Your task to perform on an android device: turn on priority inbox in the gmail app Image 0: 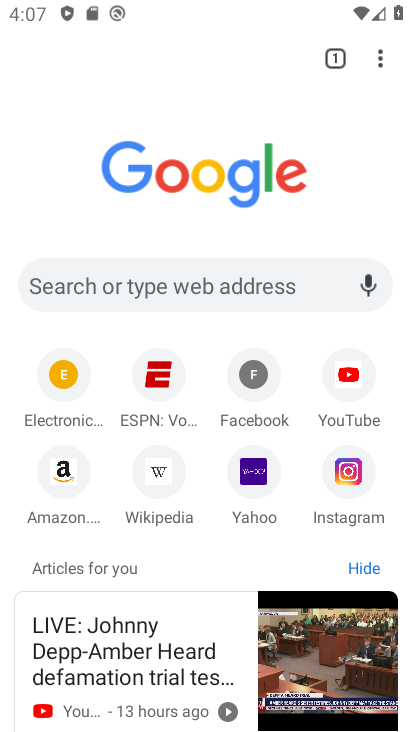
Step 0: press back button
Your task to perform on an android device: turn on priority inbox in the gmail app Image 1: 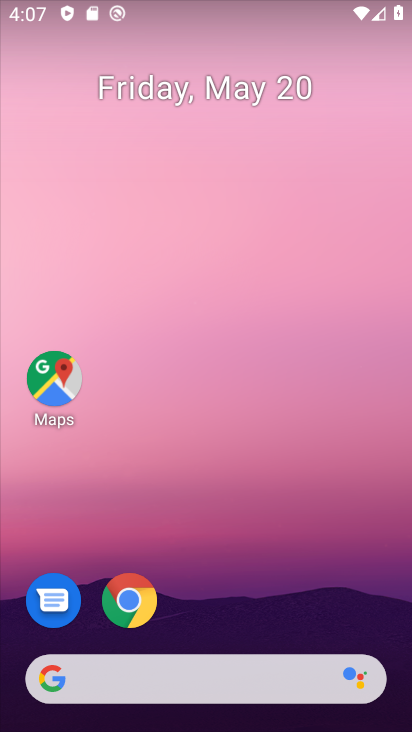
Step 1: drag from (244, 565) to (243, 3)
Your task to perform on an android device: turn on priority inbox in the gmail app Image 2: 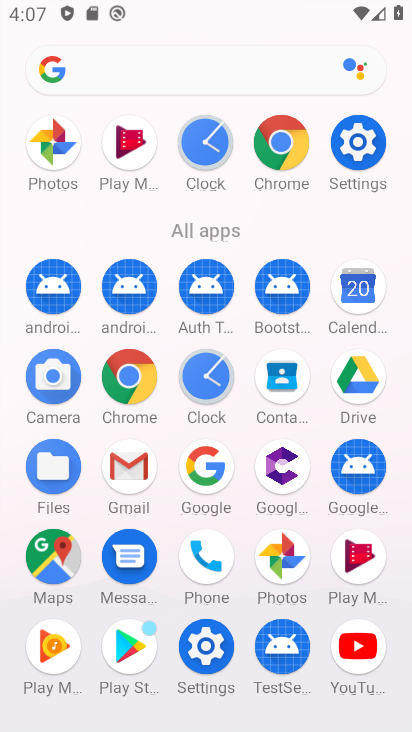
Step 2: drag from (4, 545) to (26, 208)
Your task to perform on an android device: turn on priority inbox in the gmail app Image 3: 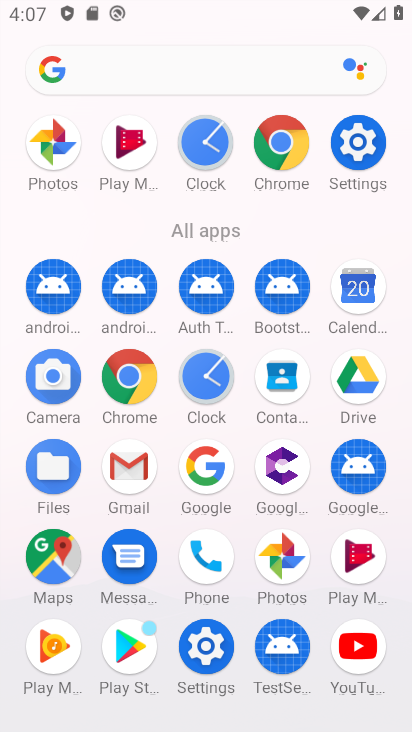
Step 3: drag from (0, 620) to (0, 395)
Your task to perform on an android device: turn on priority inbox in the gmail app Image 4: 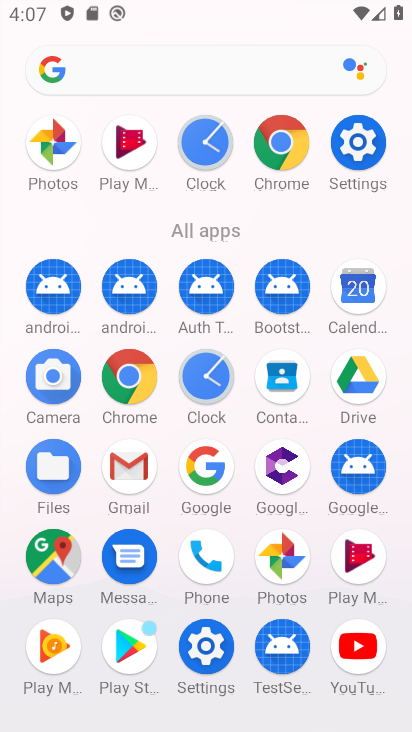
Step 4: click (119, 456)
Your task to perform on an android device: turn on priority inbox in the gmail app Image 5: 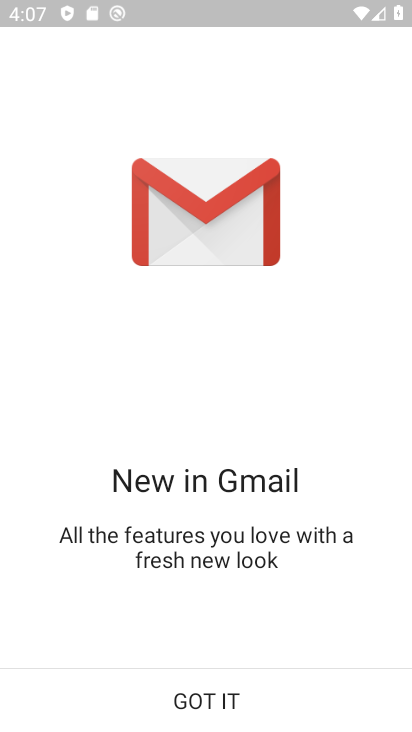
Step 5: click (181, 691)
Your task to perform on an android device: turn on priority inbox in the gmail app Image 6: 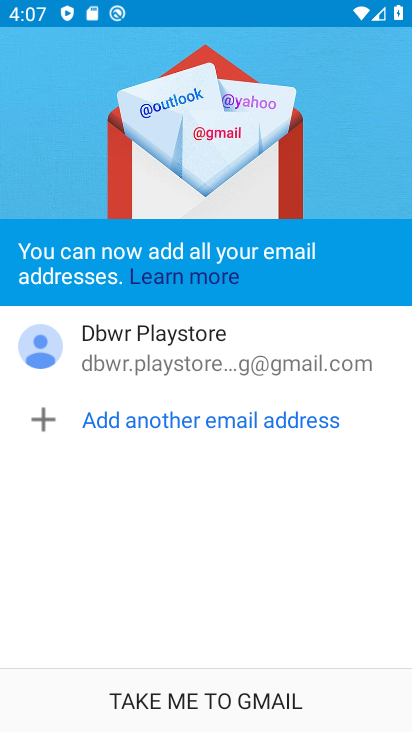
Step 6: click (181, 686)
Your task to perform on an android device: turn on priority inbox in the gmail app Image 7: 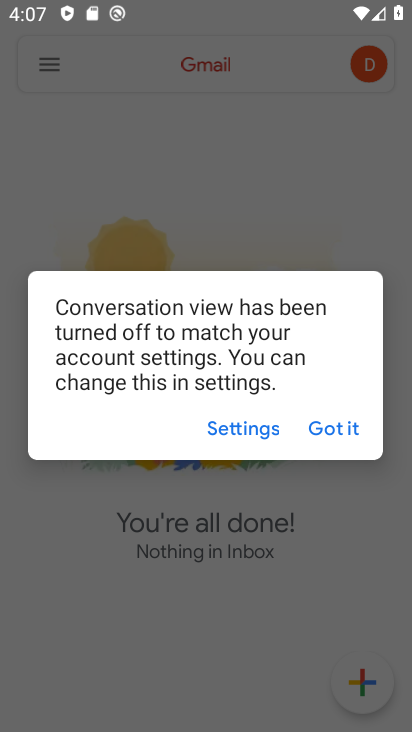
Step 7: click (312, 434)
Your task to perform on an android device: turn on priority inbox in the gmail app Image 8: 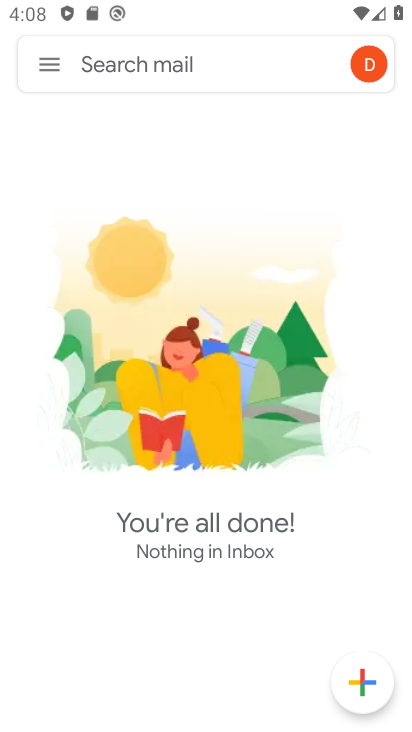
Step 8: click (43, 57)
Your task to perform on an android device: turn on priority inbox in the gmail app Image 9: 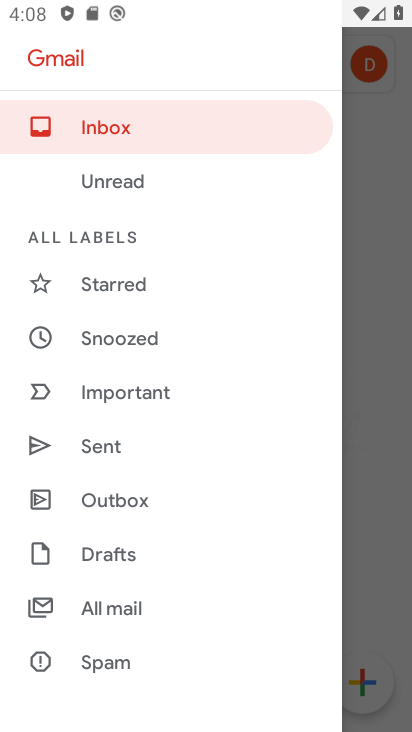
Step 9: drag from (215, 604) to (244, 181)
Your task to perform on an android device: turn on priority inbox in the gmail app Image 10: 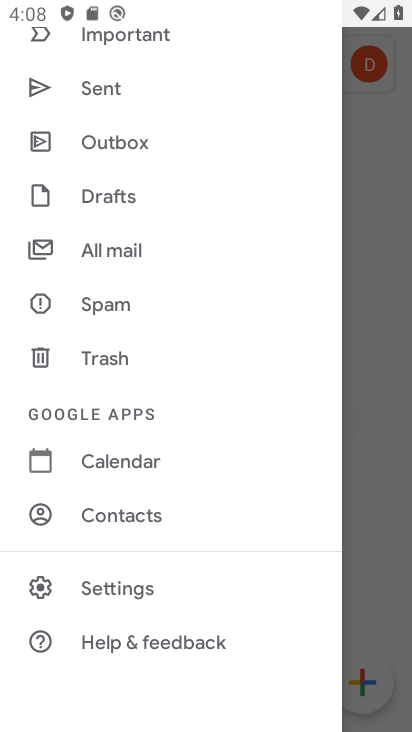
Step 10: click (113, 598)
Your task to perform on an android device: turn on priority inbox in the gmail app Image 11: 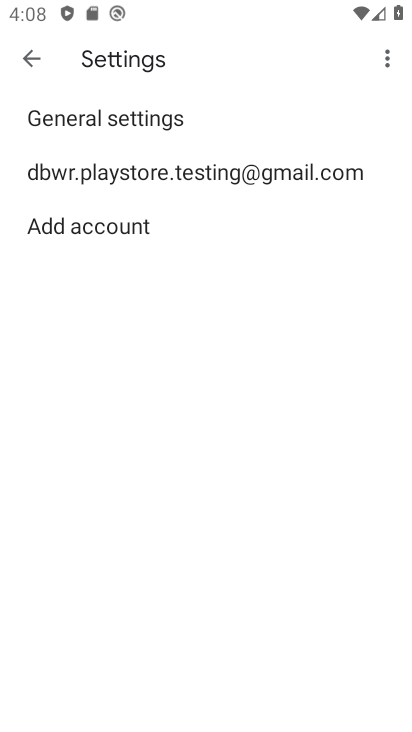
Step 11: click (200, 166)
Your task to perform on an android device: turn on priority inbox in the gmail app Image 12: 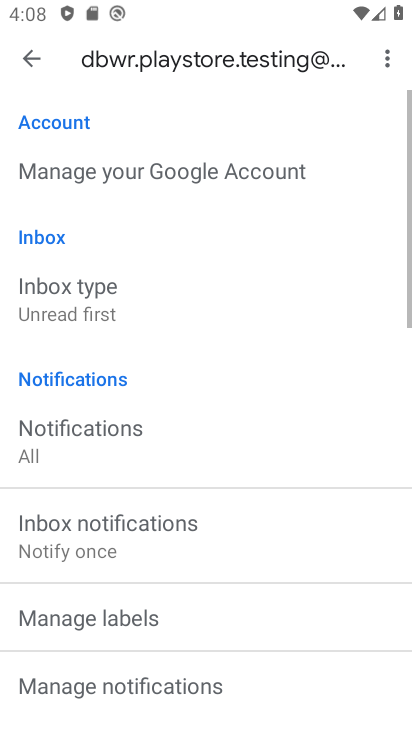
Step 12: click (115, 285)
Your task to perform on an android device: turn on priority inbox in the gmail app Image 13: 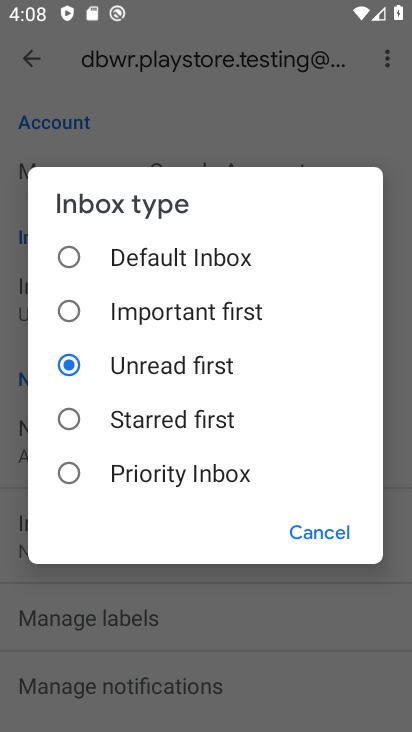
Step 13: click (130, 476)
Your task to perform on an android device: turn on priority inbox in the gmail app Image 14: 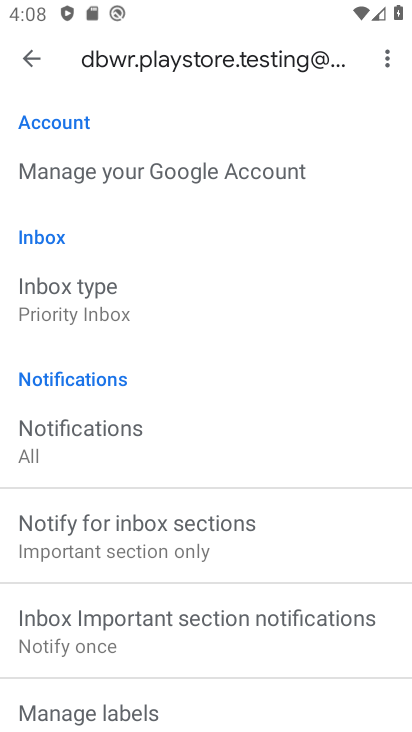
Step 14: task complete